Your task to perform on an android device: Go to battery settings Image 0: 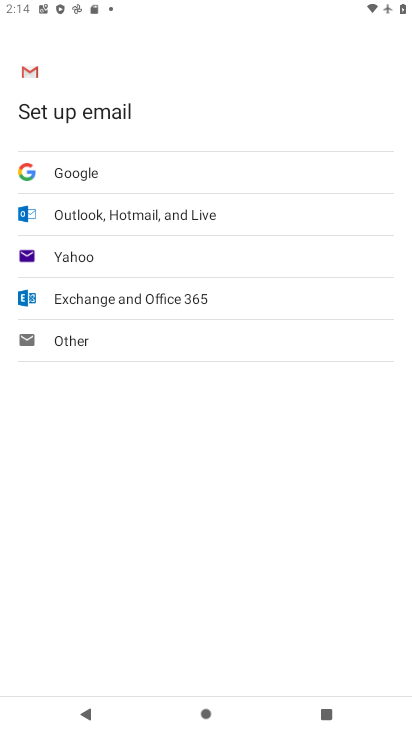
Step 0: press home button
Your task to perform on an android device: Go to battery settings Image 1: 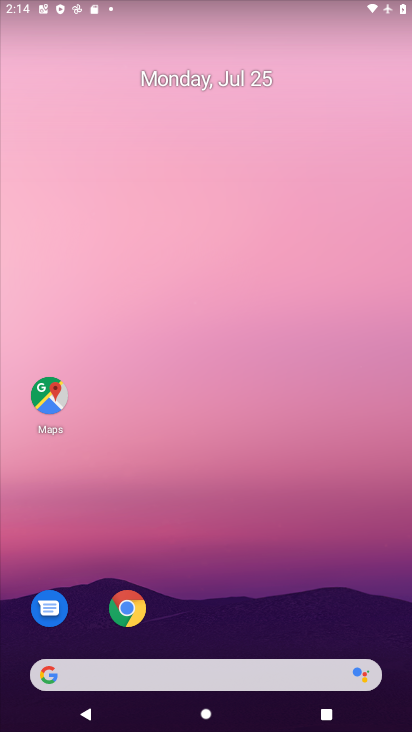
Step 1: drag from (309, 386) to (328, 56)
Your task to perform on an android device: Go to battery settings Image 2: 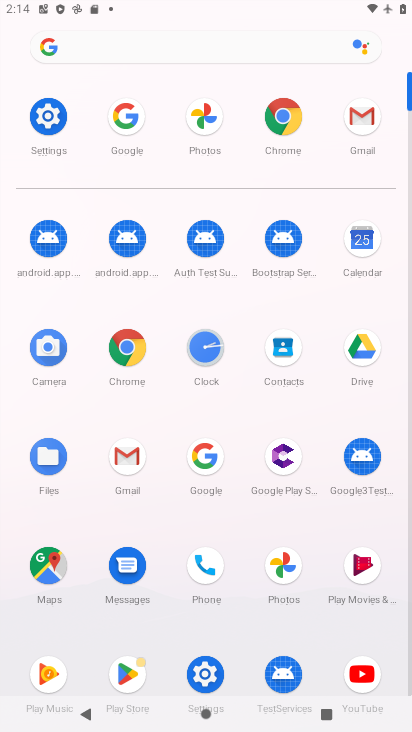
Step 2: click (67, 110)
Your task to perform on an android device: Go to battery settings Image 3: 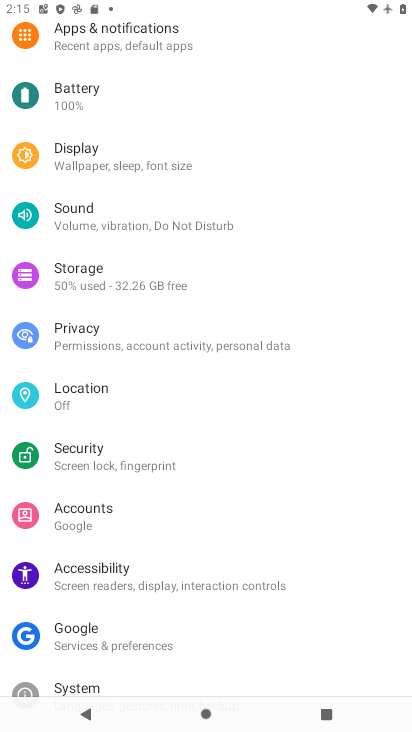
Step 3: click (95, 98)
Your task to perform on an android device: Go to battery settings Image 4: 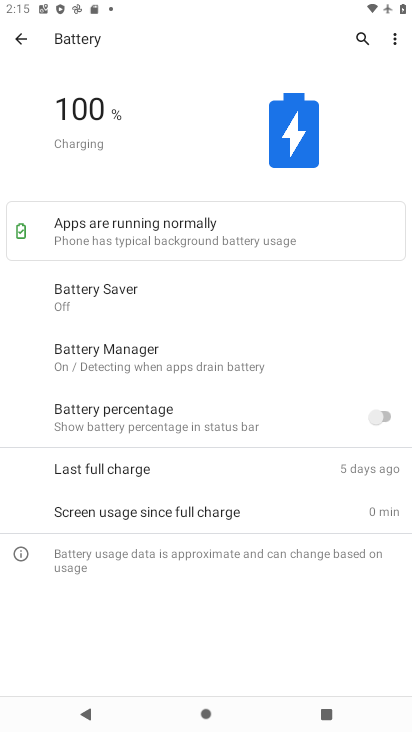
Step 4: task complete